Your task to perform on an android device: see tabs open on other devices in the chrome app Image 0: 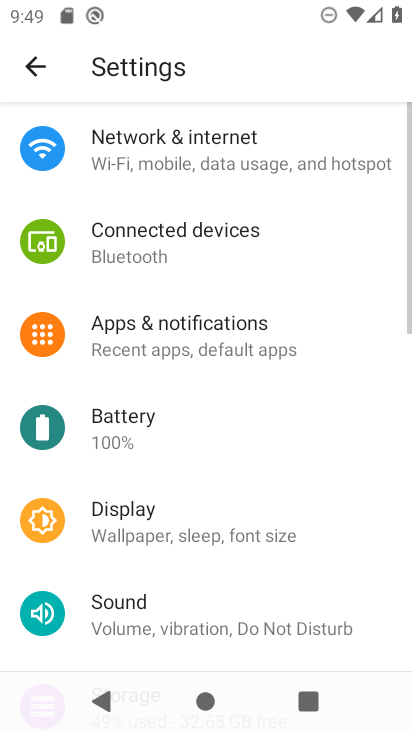
Step 0: press home button
Your task to perform on an android device: see tabs open on other devices in the chrome app Image 1: 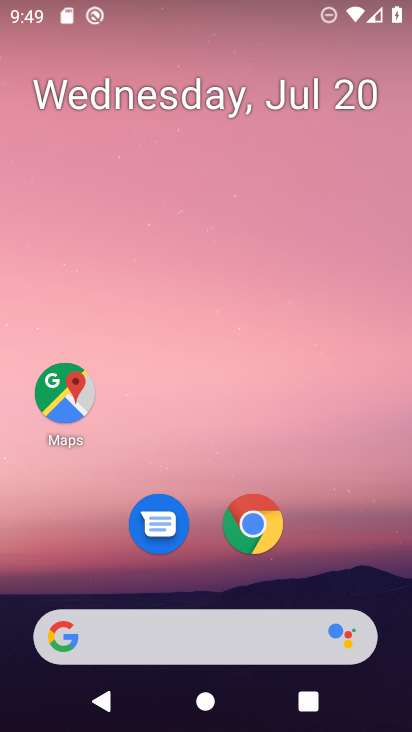
Step 1: click (254, 525)
Your task to perform on an android device: see tabs open on other devices in the chrome app Image 2: 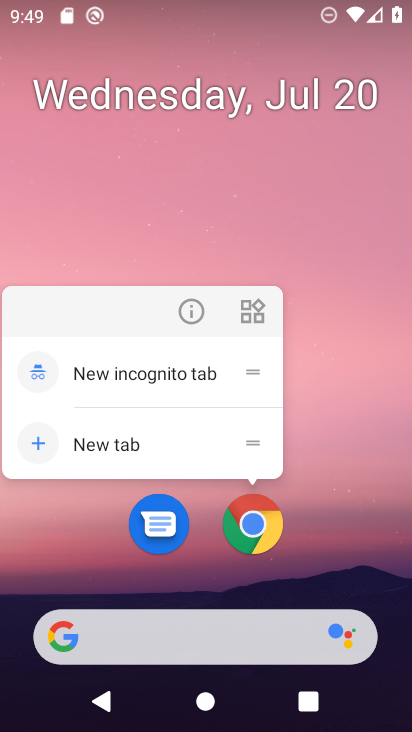
Step 2: click (254, 525)
Your task to perform on an android device: see tabs open on other devices in the chrome app Image 3: 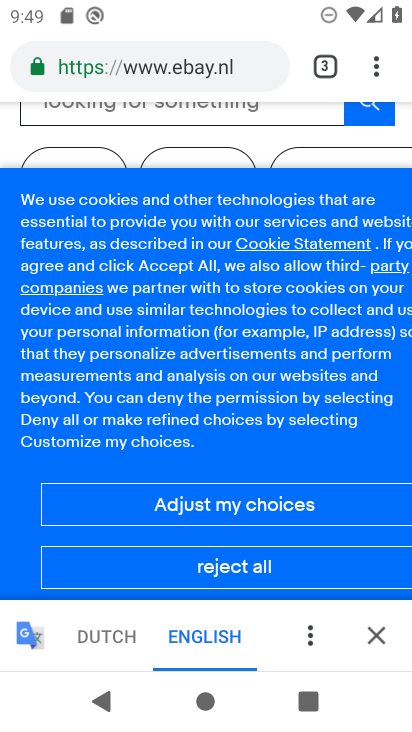
Step 3: task complete